Your task to perform on an android device: Clear the shopping cart on amazon. Add "bose soundlink" to the cart on amazon Image 0: 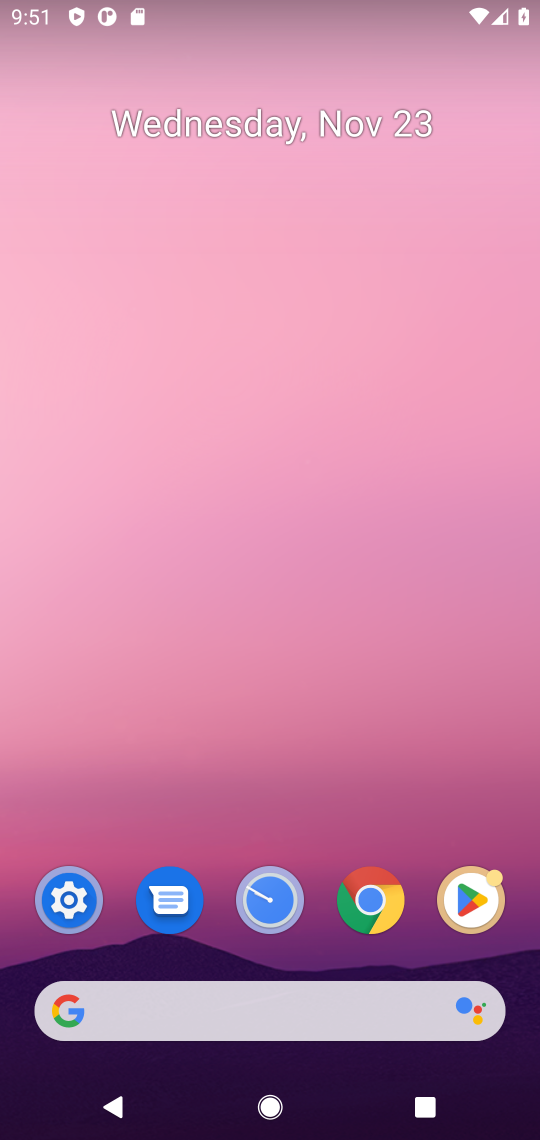
Step 0: click (295, 1027)
Your task to perform on an android device: Clear the shopping cart on amazon. Add "bose soundlink" to the cart on amazon Image 1: 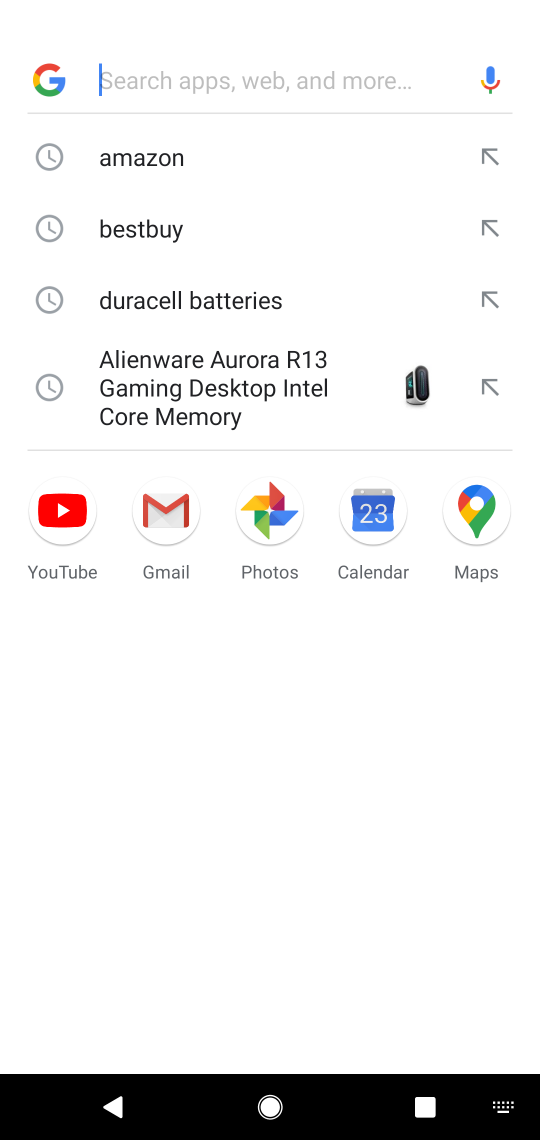
Step 1: type "amazon"
Your task to perform on an android device: Clear the shopping cart on amazon. Add "bose soundlink" to the cart on amazon Image 2: 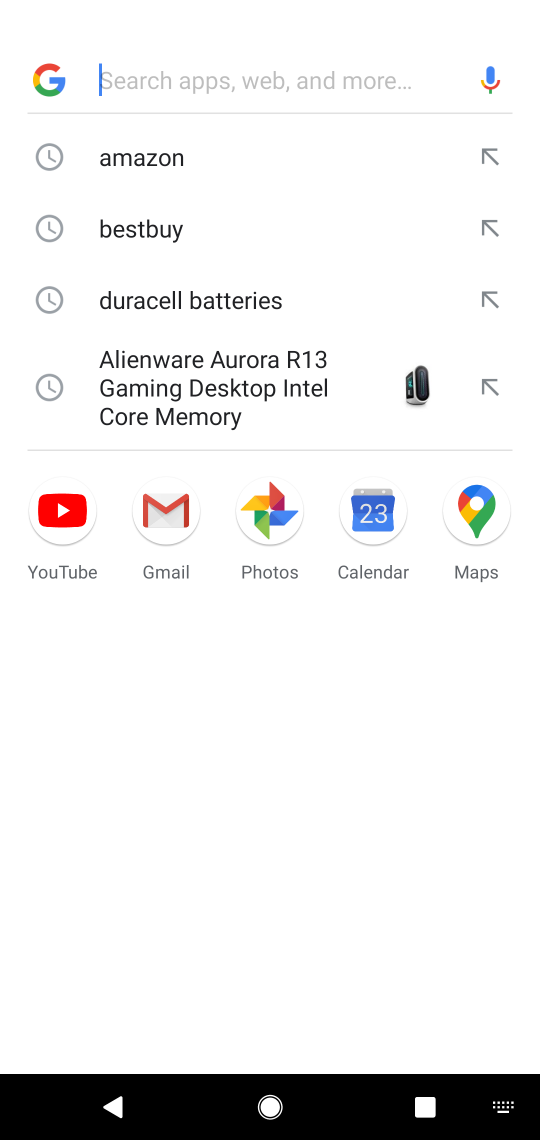
Step 2: click (223, 170)
Your task to perform on an android device: Clear the shopping cart on amazon. Add "bose soundlink" to the cart on amazon Image 3: 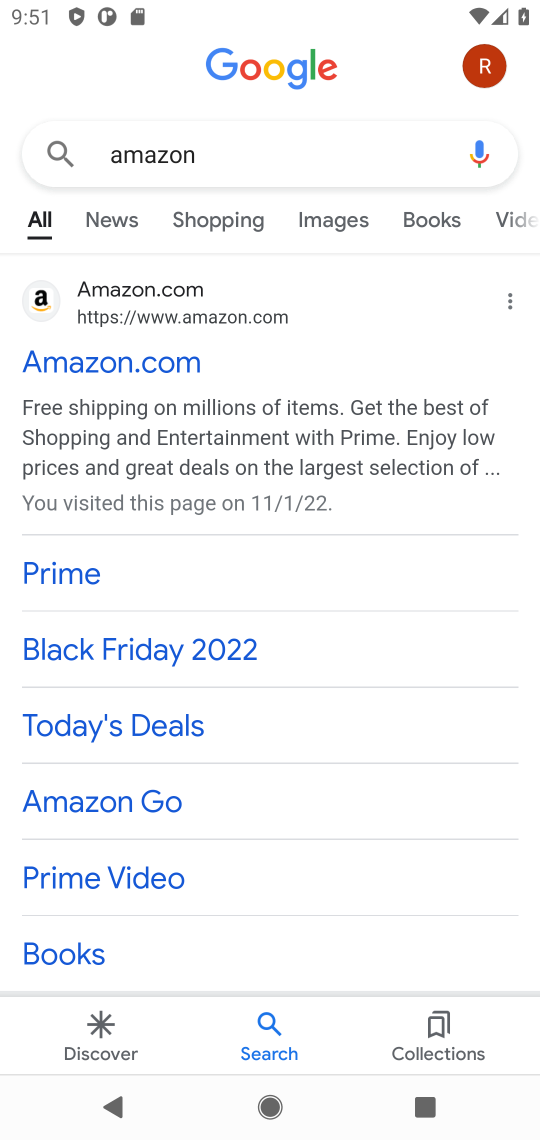
Step 3: click (162, 380)
Your task to perform on an android device: Clear the shopping cart on amazon. Add "bose soundlink" to the cart on amazon Image 4: 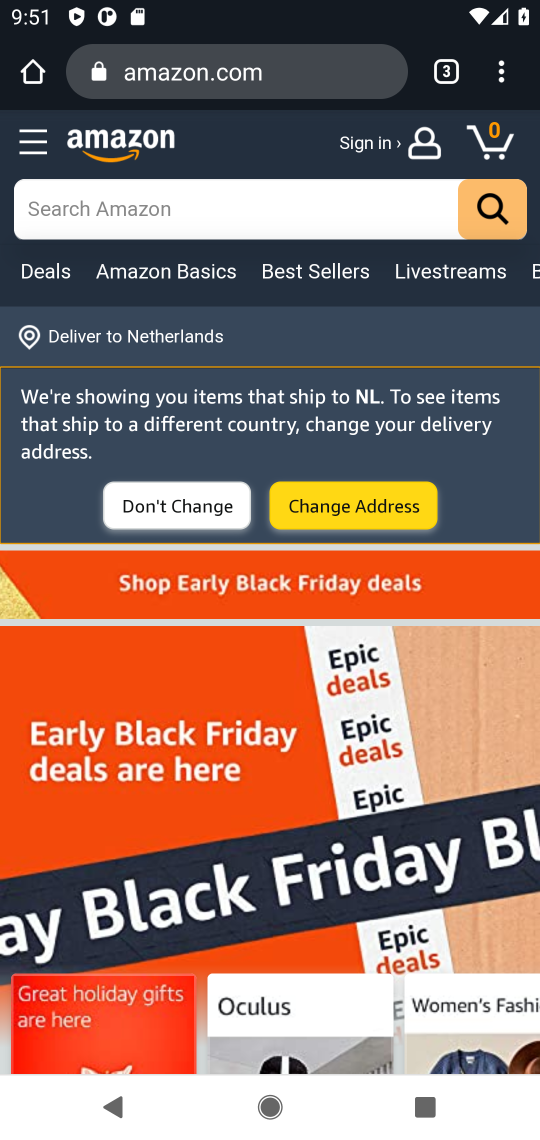
Step 4: click (239, 226)
Your task to perform on an android device: Clear the shopping cart on amazon. Add "bose soundlink" to the cart on amazon Image 5: 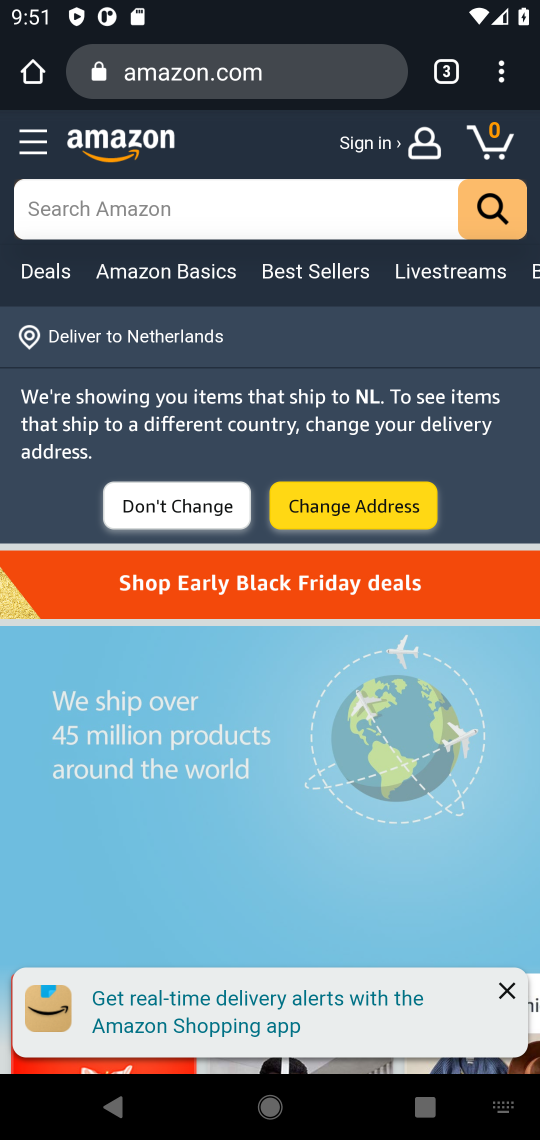
Step 5: type "bose sound link"
Your task to perform on an android device: Clear the shopping cart on amazon. Add "bose soundlink" to the cart on amazon Image 6: 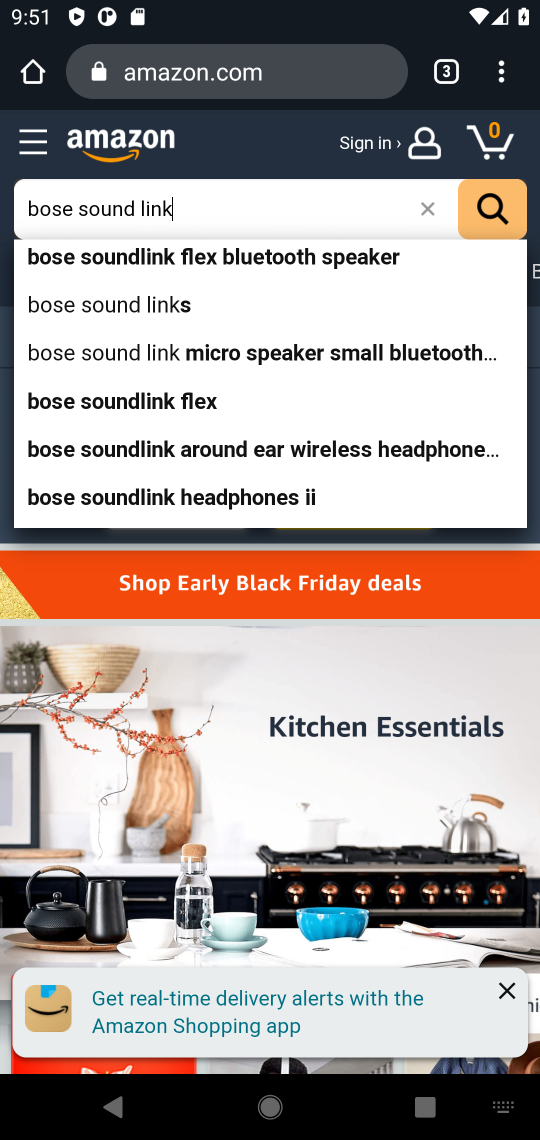
Step 6: click (188, 297)
Your task to perform on an android device: Clear the shopping cart on amazon. Add "bose soundlink" to the cart on amazon Image 7: 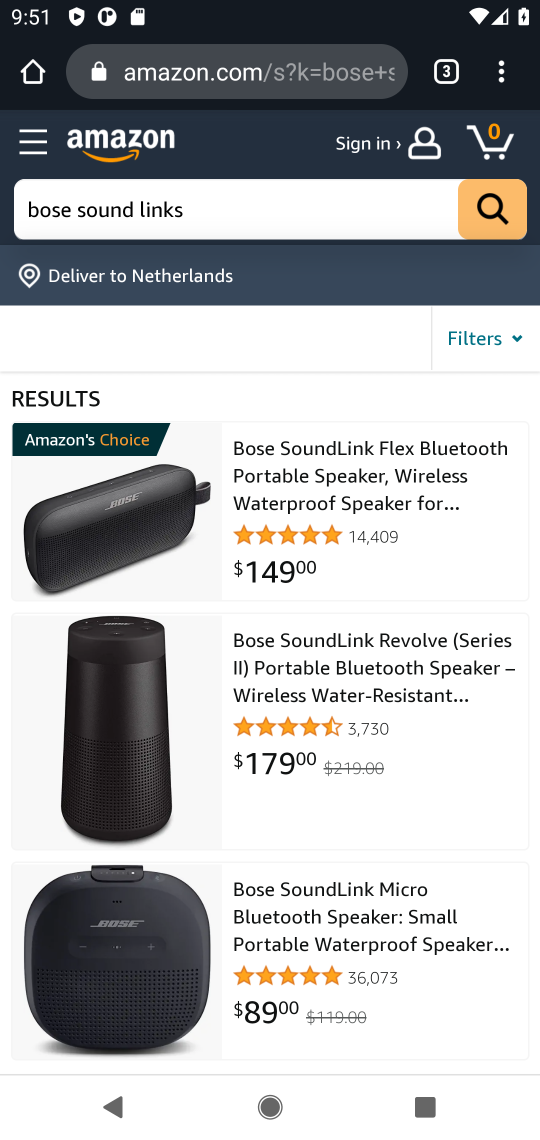
Step 7: click (337, 491)
Your task to perform on an android device: Clear the shopping cart on amazon. Add "bose soundlink" to the cart on amazon Image 8: 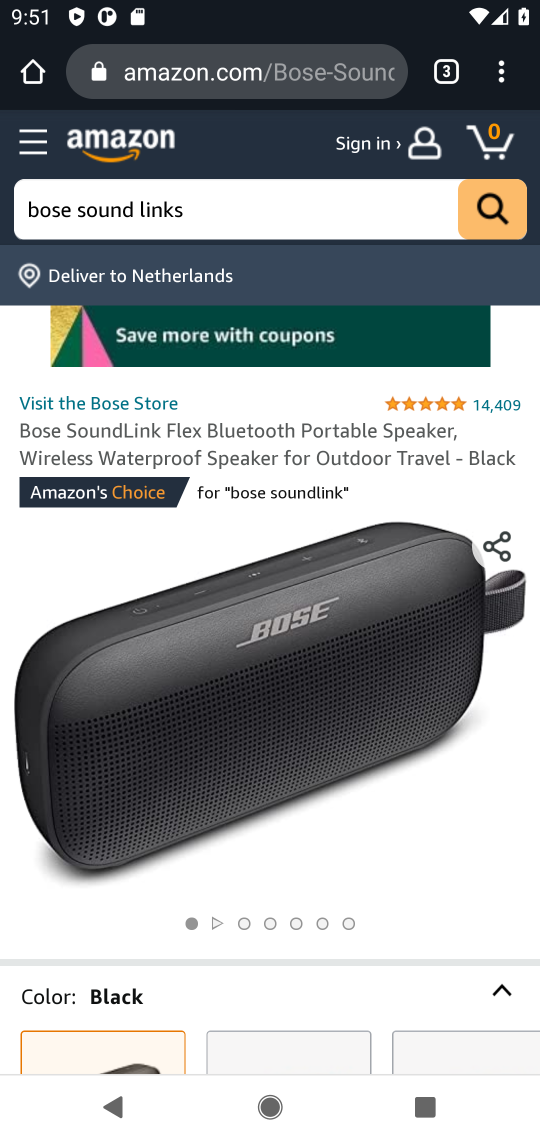
Step 8: task complete